Your task to perform on an android device: Go to display settings Image 0: 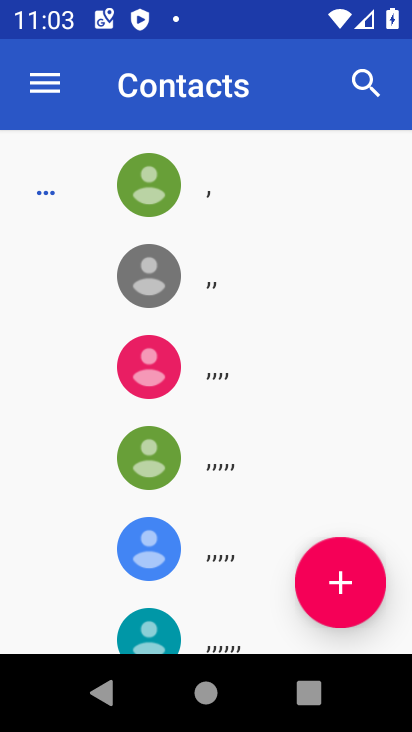
Step 0: press home button
Your task to perform on an android device: Go to display settings Image 1: 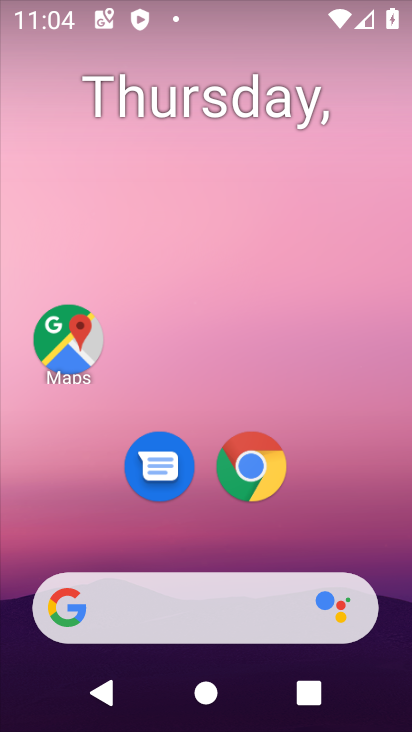
Step 1: drag from (185, 559) to (253, 0)
Your task to perform on an android device: Go to display settings Image 2: 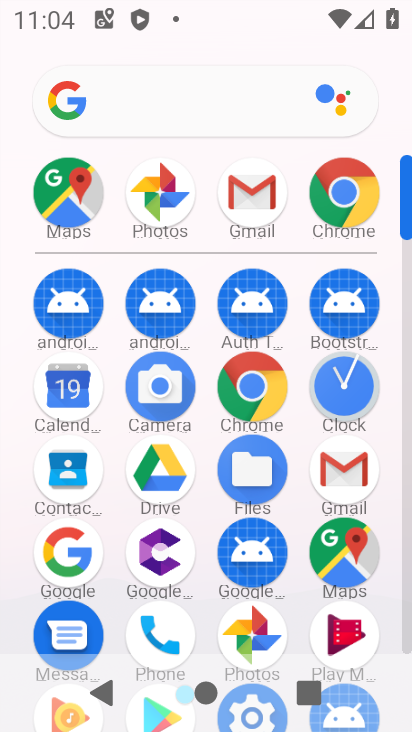
Step 2: drag from (203, 591) to (150, 192)
Your task to perform on an android device: Go to display settings Image 3: 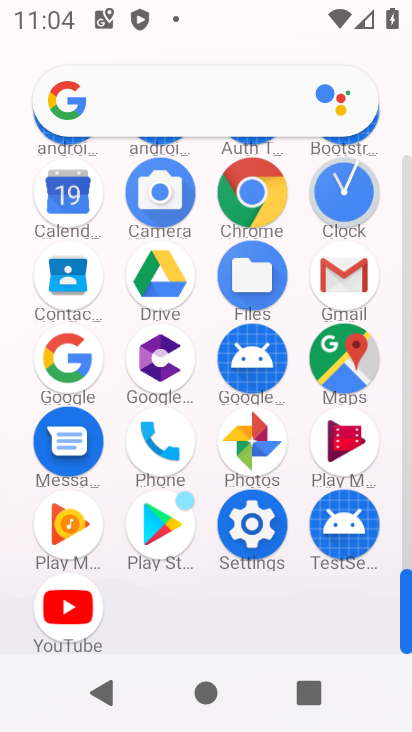
Step 3: click (252, 531)
Your task to perform on an android device: Go to display settings Image 4: 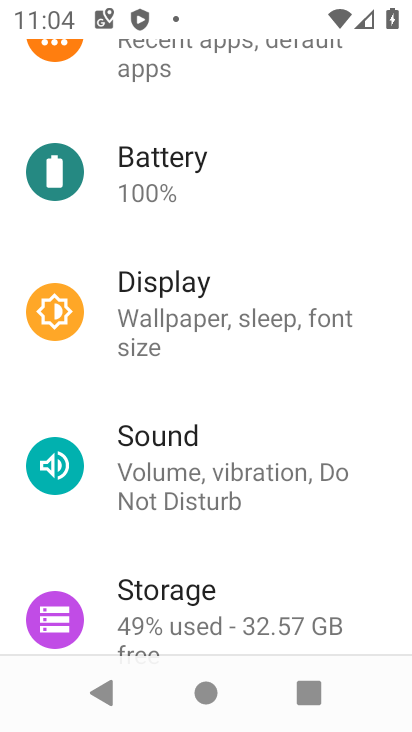
Step 4: click (145, 313)
Your task to perform on an android device: Go to display settings Image 5: 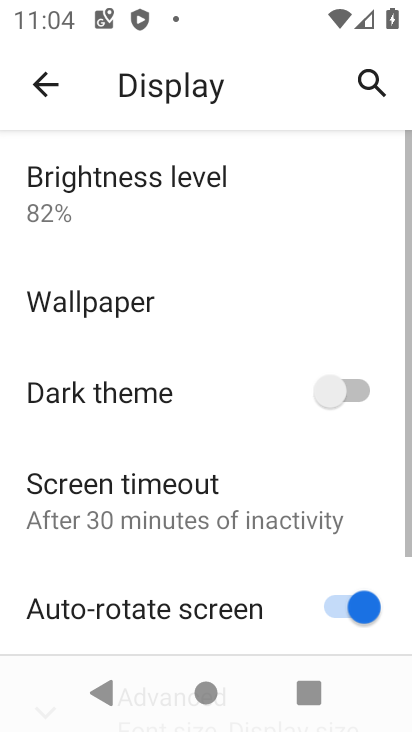
Step 5: task complete